Your task to perform on an android device: create a new album in the google photos Image 0: 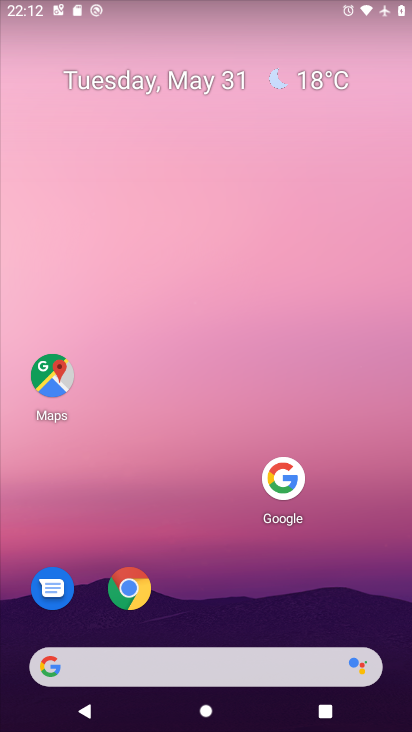
Step 0: drag from (194, 665) to (310, 256)
Your task to perform on an android device: create a new album in the google photos Image 1: 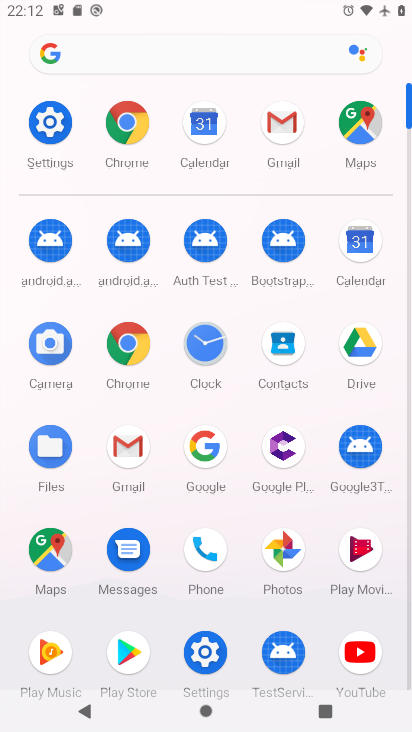
Step 1: click (284, 559)
Your task to perform on an android device: create a new album in the google photos Image 2: 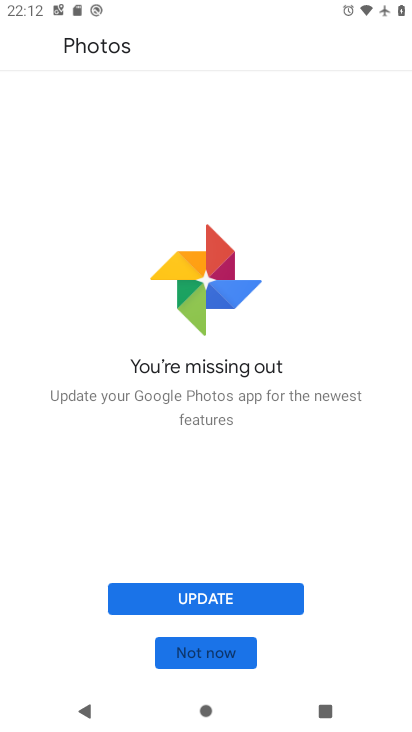
Step 2: click (222, 593)
Your task to perform on an android device: create a new album in the google photos Image 3: 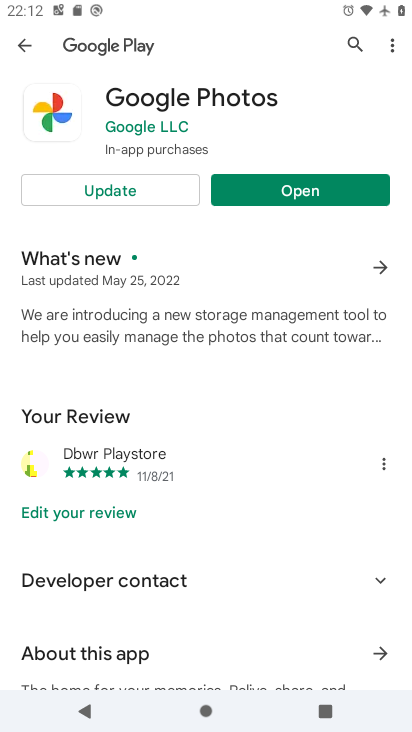
Step 3: click (128, 185)
Your task to perform on an android device: create a new album in the google photos Image 4: 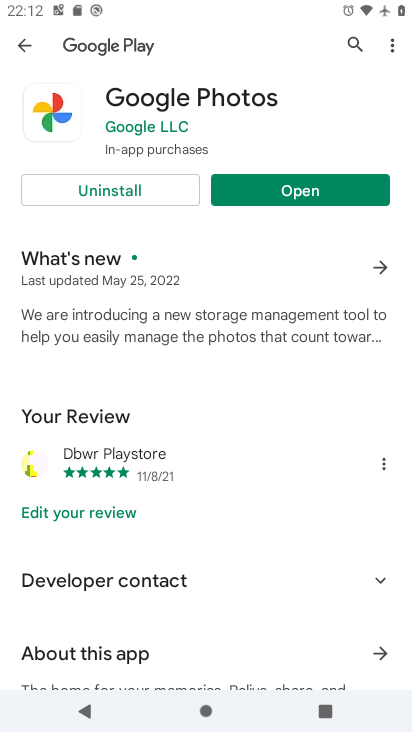
Step 4: click (298, 192)
Your task to perform on an android device: create a new album in the google photos Image 5: 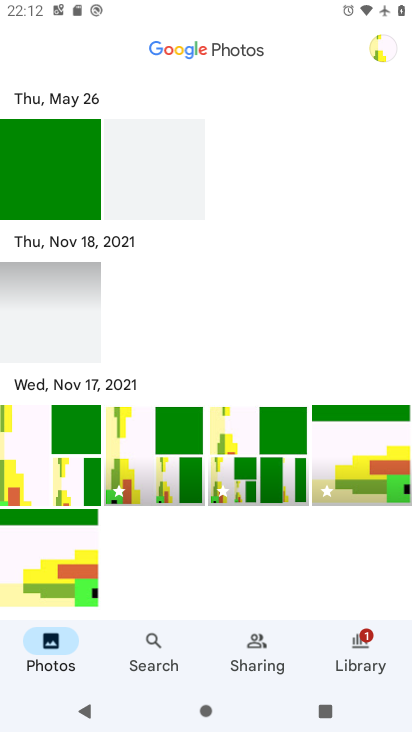
Step 5: click (356, 669)
Your task to perform on an android device: create a new album in the google photos Image 6: 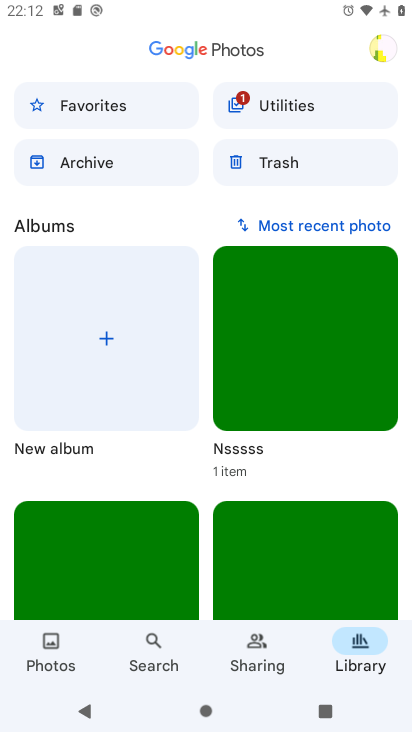
Step 6: click (104, 331)
Your task to perform on an android device: create a new album in the google photos Image 7: 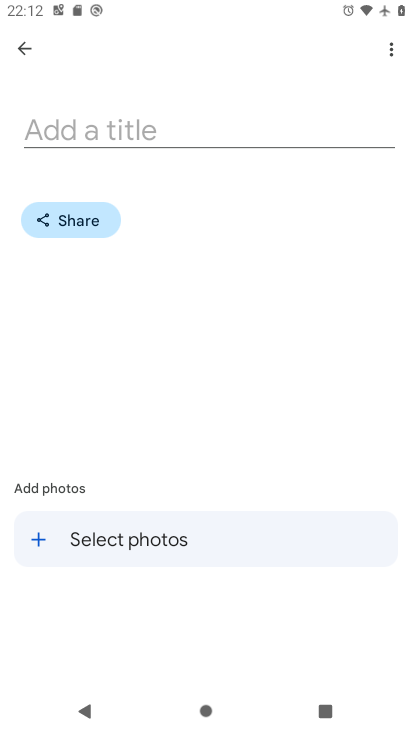
Step 7: click (154, 539)
Your task to perform on an android device: create a new album in the google photos Image 8: 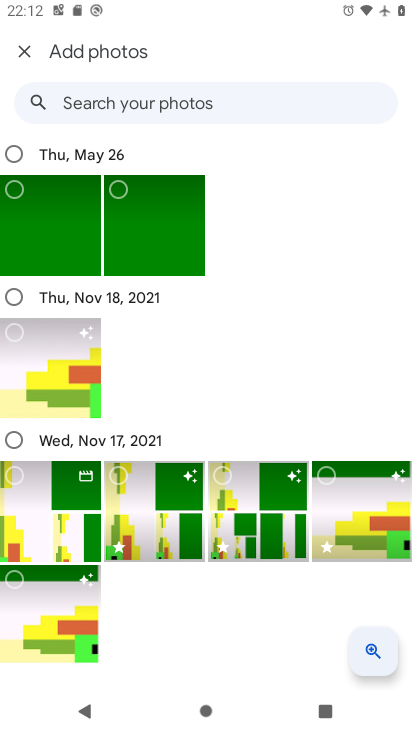
Step 8: click (64, 352)
Your task to perform on an android device: create a new album in the google photos Image 9: 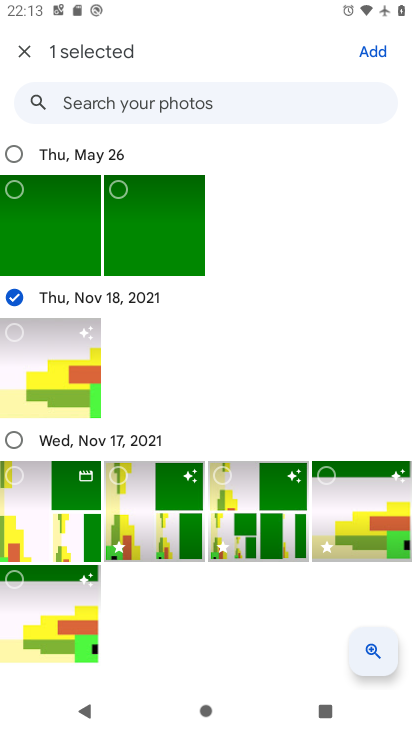
Step 9: click (59, 501)
Your task to perform on an android device: create a new album in the google photos Image 10: 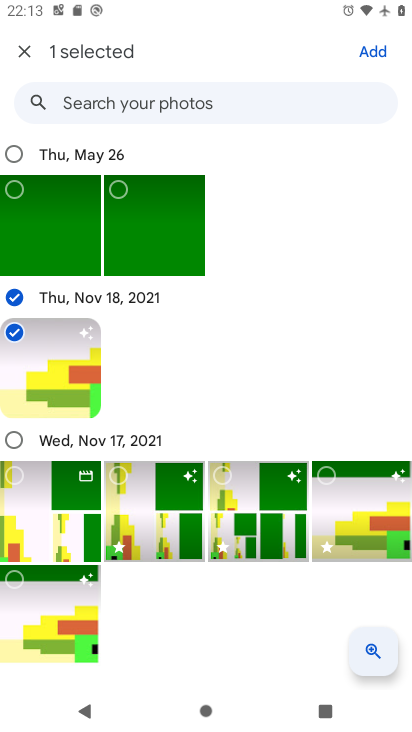
Step 10: click (159, 503)
Your task to perform on an android device: create a new album in the google photos Image 11: 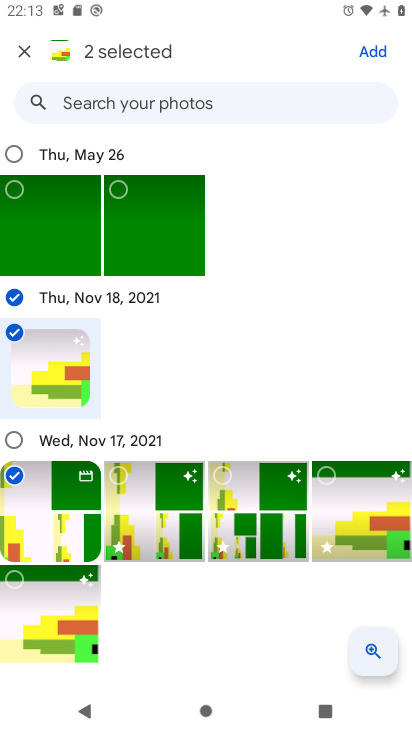
Step 11: click (244, 512)
Your task to perform on an android device: create a new album in the google photos Image 12: 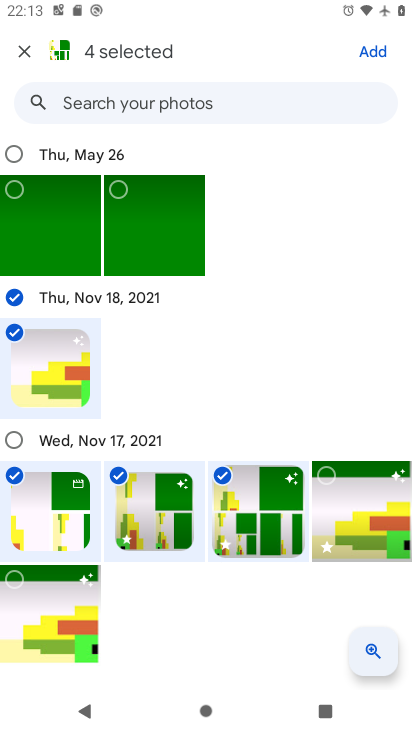
Step 12: click (334, 509)
Your task to perform on an android device: create a new album in the google photos Image 13: 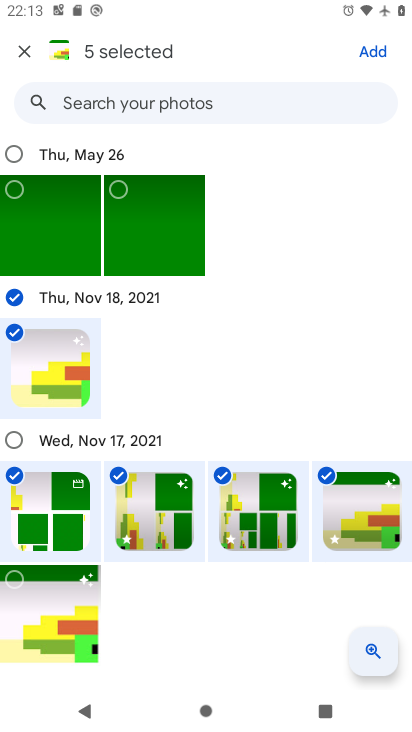
Step 13: click (373, 45)
Your task to perform on an android device: create a new album in the google photos Image 14: 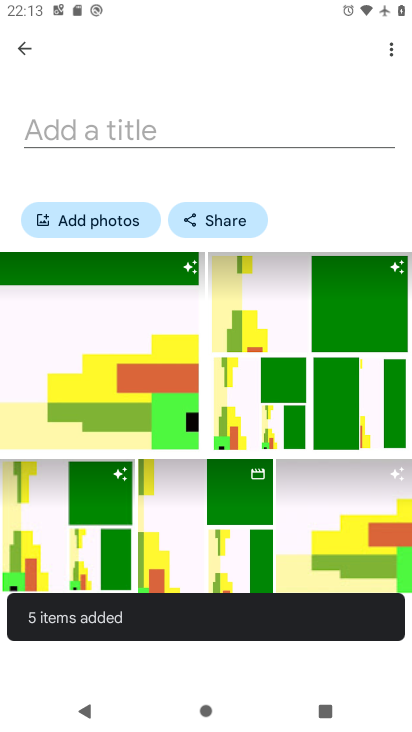
Step 14: task complete